Your task to perform on an android device: When is my next appointment? Image 0: 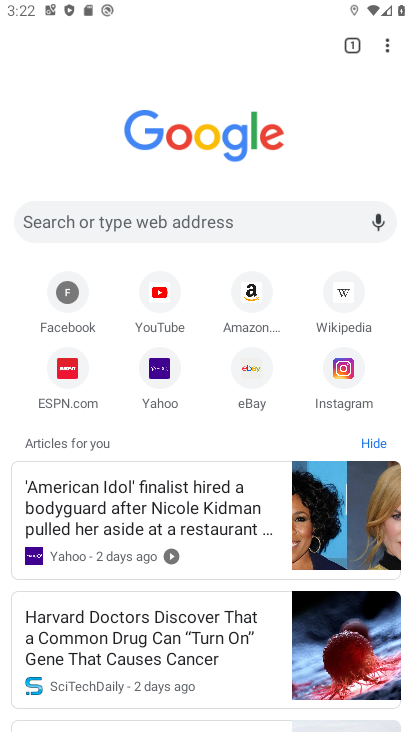
Step 0: press home button
Your task to perform on an android device: When is my next appointment? Image 1: 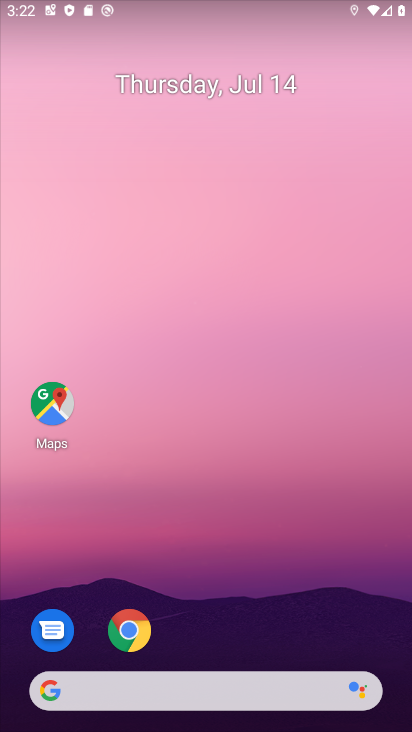
Step 1: drag from (400, 596) to (273, 9)
Your task to perform on an android device: When is my next appointment? Image 2: 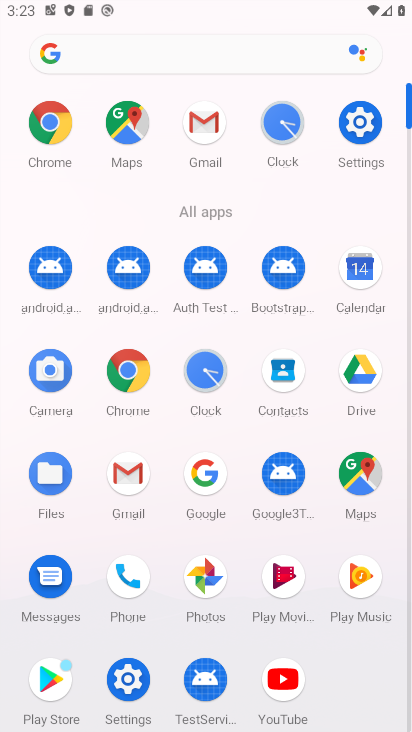
Step 2: click (352, 264)
Your task to perform on an android device: When is my next appointment? Image 3: 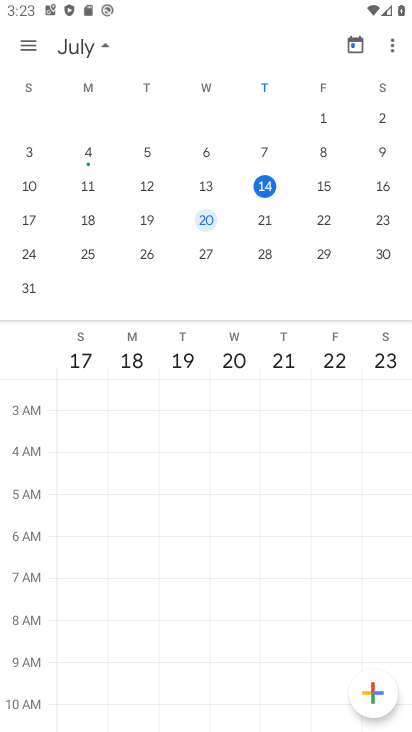
Step 3: click (30, 48)
Your task to perform on an android device: When is my next appointment? Image 4: 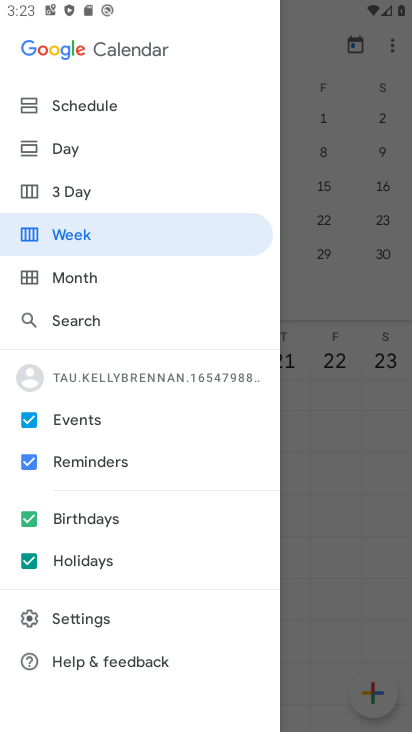
Step 4: click (71, 111)
Your task to perform on an android device: When is my next appointment? Image 5: 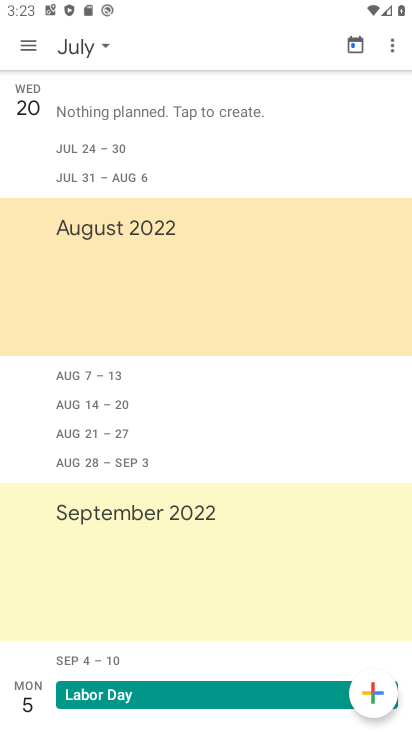
Step 5: task complete